Your task to perform on an android device: Search for pizza restaurants on Maps Image 0: 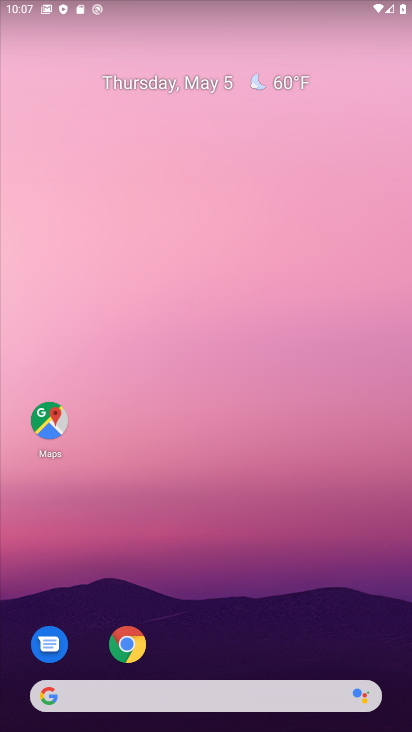
Step 0: drag from (357, 603) to (357, 144)
Your task to perform on an android device: Search for pizza restaurants on Maps Image 1: 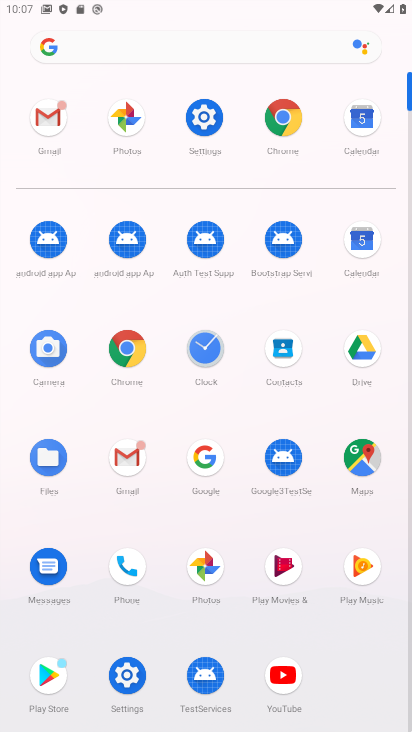
Step 1: click (363, 456)
Your task to perform on an android device: Search for pizza restaurants on Maps Image 2: 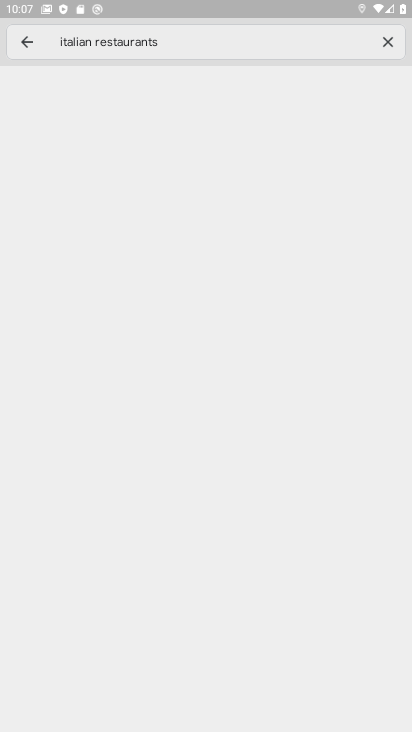
Step 2: click (389, 47)
Your task to perform on an android device: Search for pizza restaurants on Maps Image 3: 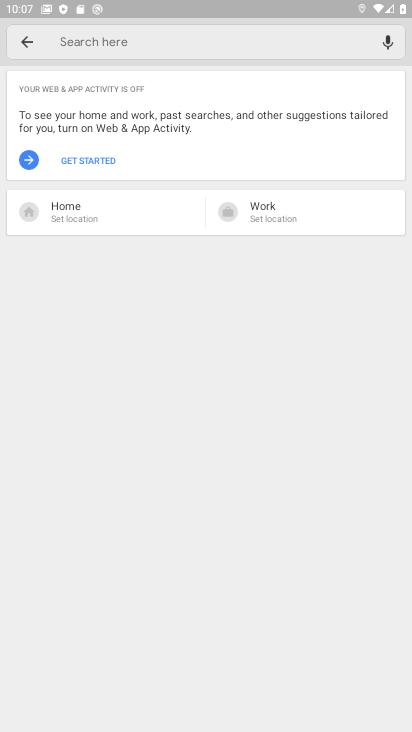
Step 3: click (136, 49)
Your task to perform on an android device: Search for pizza restaurants on Maps Image 4: 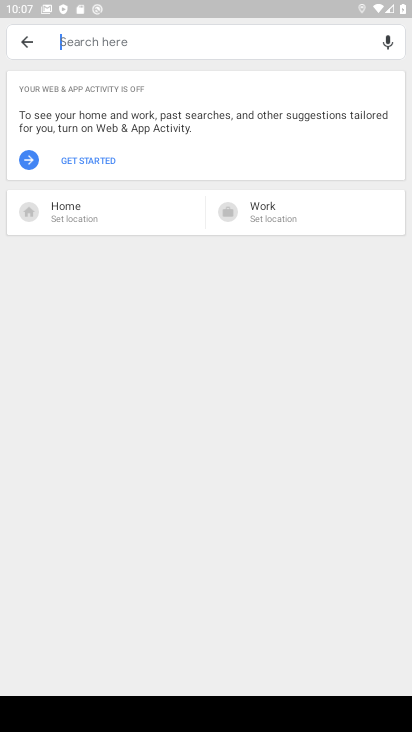
Step 4: type "pizza restaurants"
Your task to perform on an android device: Search for pizza restaurants on Maps Image 5: 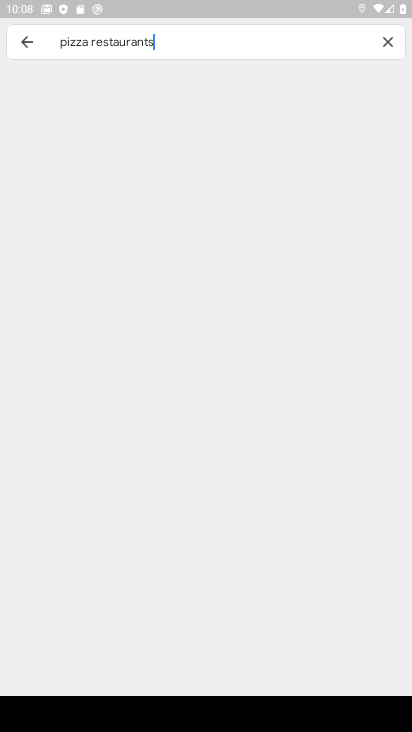
Step 5: task complete